Your task to perform on an android device: open chrome and create a bookmark for the current page Image 0: 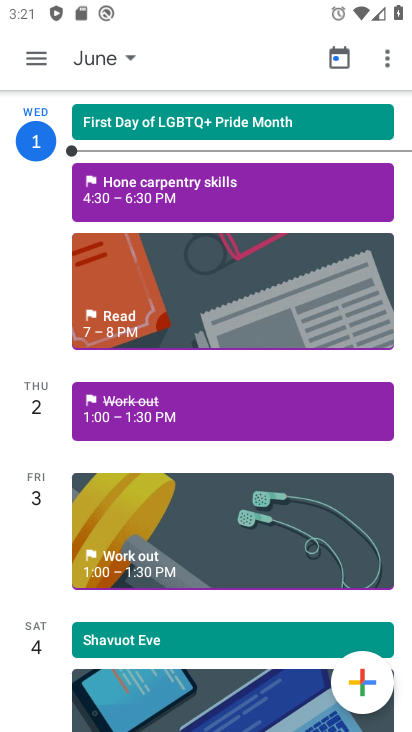
Step 0: press home button
Your task to perform on an android device: open chrome and create a bookmark for the current page Image 1: 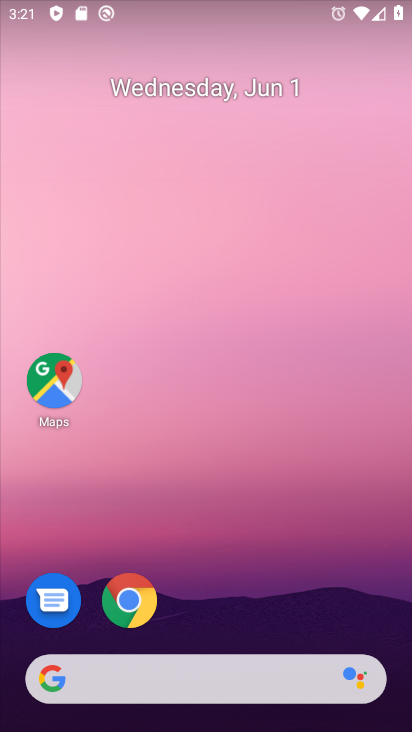
Step 1: drag from (225, 616) to (266, 164)
Your task to perform on an android device: open chrome and create a bookmark for the current page Image 2: 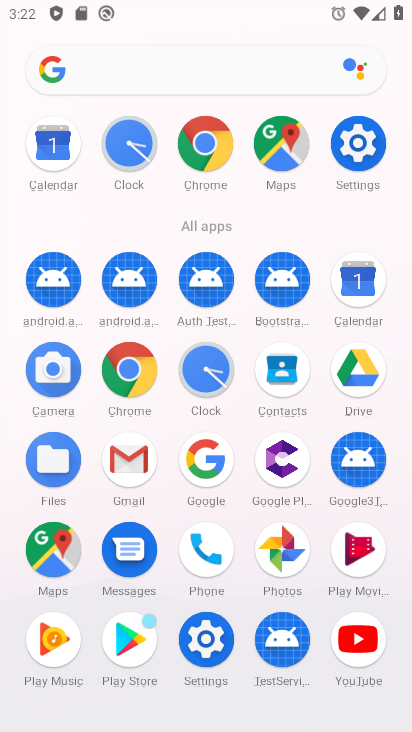
Step 2: click (129, 370)
Your task to perform on an android device: open chrome and create a bookmark for the current page Image 3: 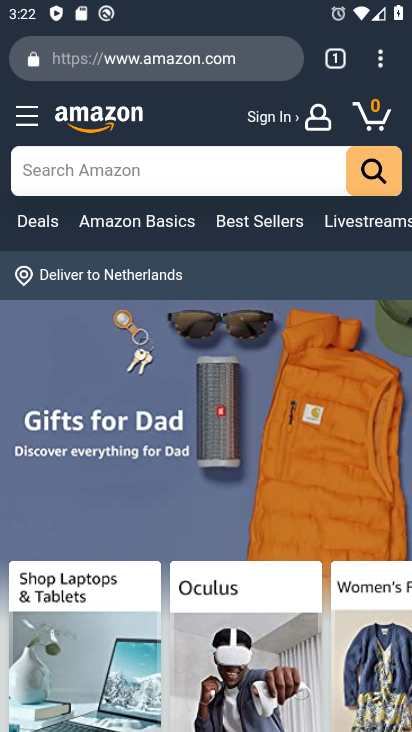
Step 3: click (377, 69)
Your task to perform on an android device: open chrome and create a bookmark for the current page Image 4: 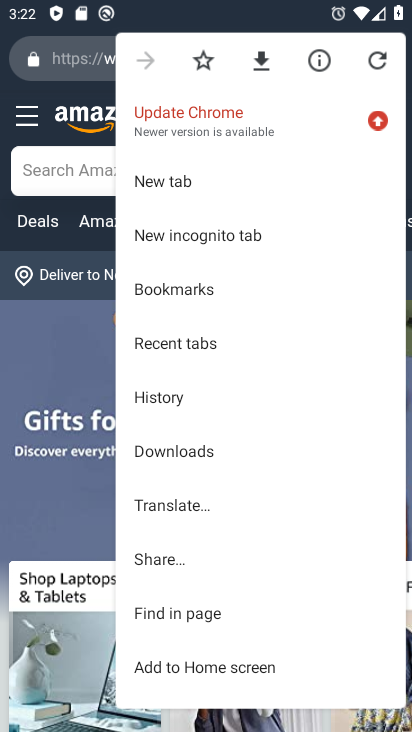
Step 4: click (195, 65)
Your task to perform on an android device: open chrome and create a bookmark for the current page Image 5: 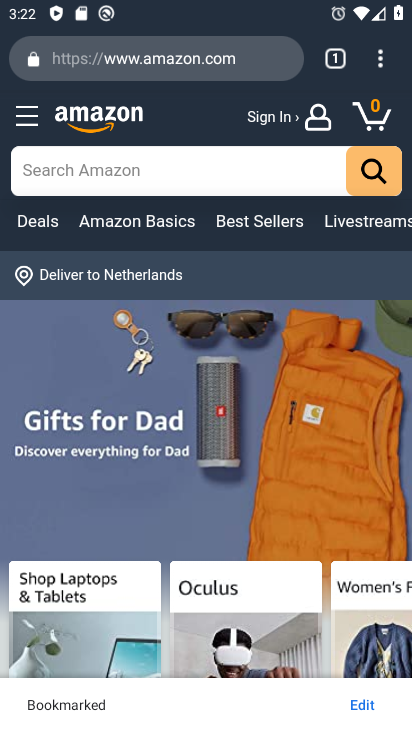
Step 5: task complete